Your task to perform on an android device: clear all cookies in the chrome app Image 0: 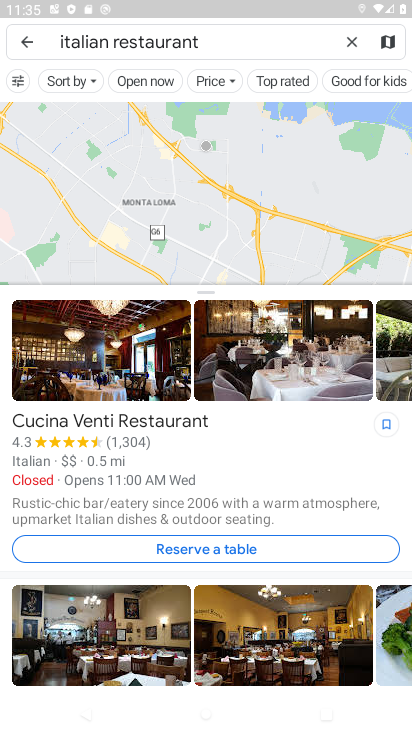
Step 0: press home button
Your task to perform on an android device: clear all cookies in the chrome app Image 1: 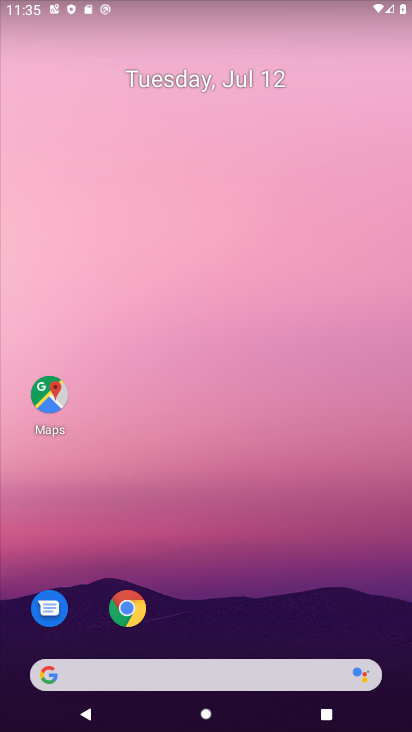
Step 1: click (131, 613)
Your task to perform on an android device: clear all cookies in the chrome app Image 2: 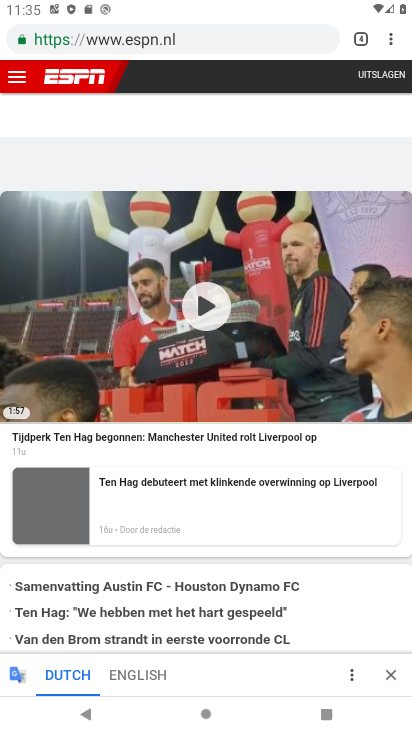
Step 2: click (393, 45)
Your task to perform on an android device: clear all cookies in the chrome app Image 3: 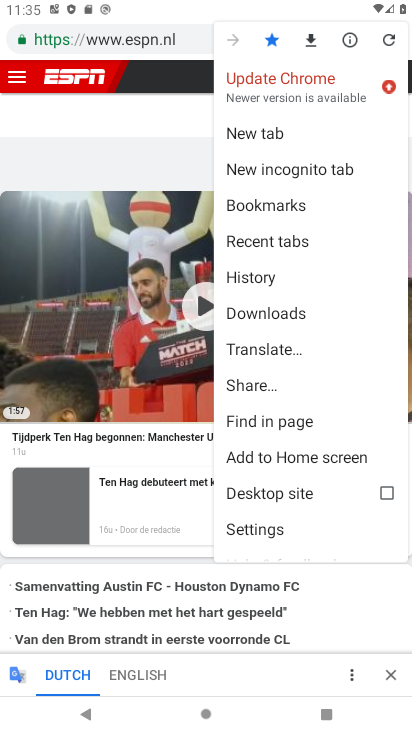
Step 3: click (248, 277)
Your task to perform on an android device: clear all cookies in the chrome app Image 4: 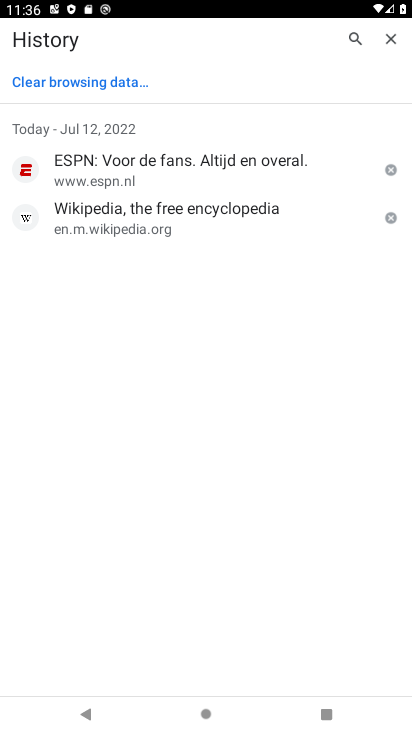
Step 4: click (89, 83)
Your task to perform on an android device: clear all cookies in the chrome app Image 5: 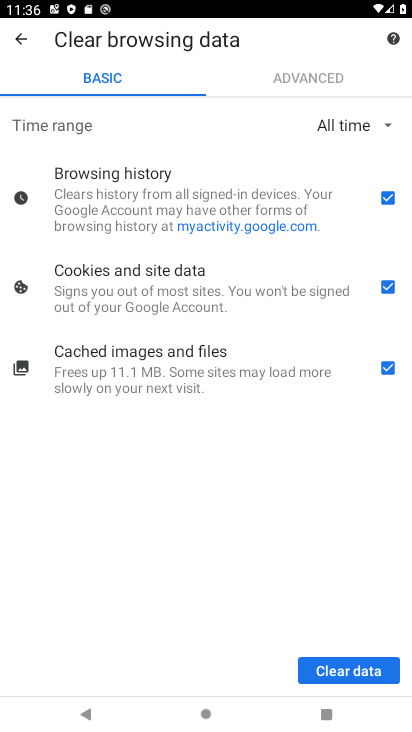
Step 5: click (387, 193)
Your task to perform on an android device: clear all cookies in the chrome app Image 6: 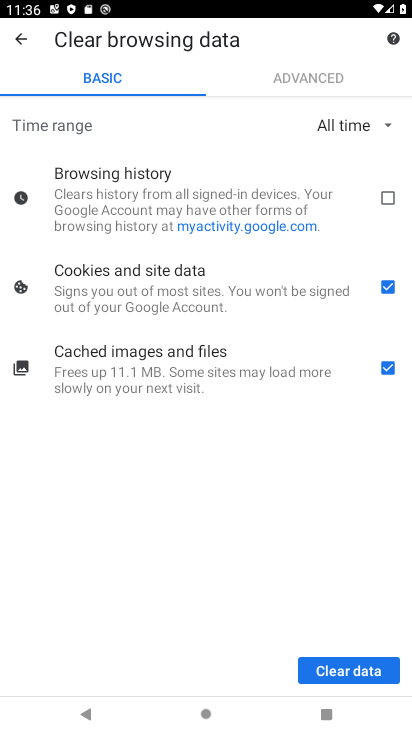
Step 6: click (388, 366)
Your task to perform on an android device: clear all cookies in the chrome app Image 7: 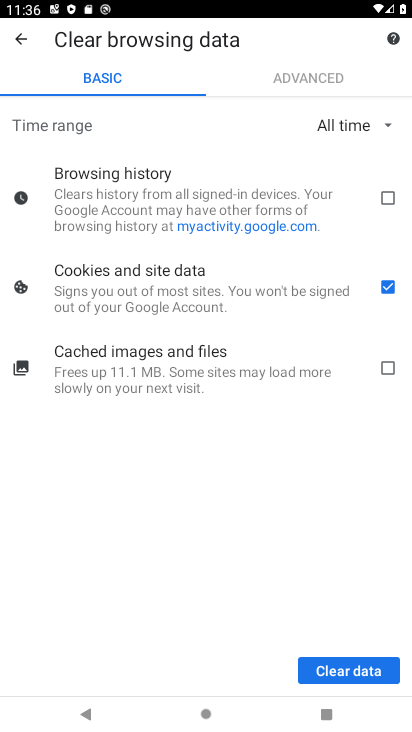
Step 7: click (348, 676)
Your task to perform on an android device: clear all cookies in the chrome app Image 8: 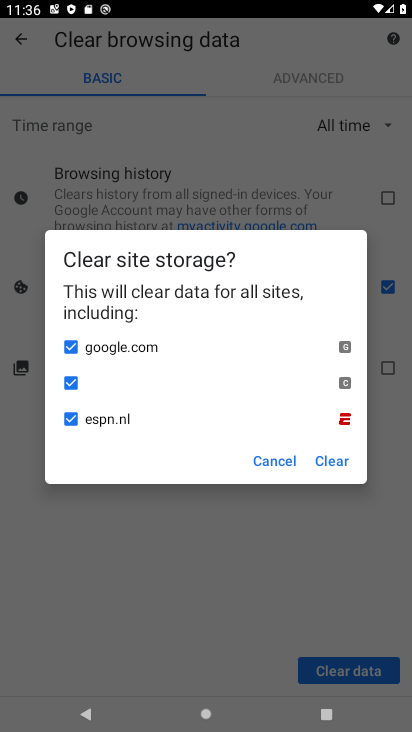
Step 8: click (331, 463)
Your task to perform on an android device: clear all cookies in the chrome app Image 9: 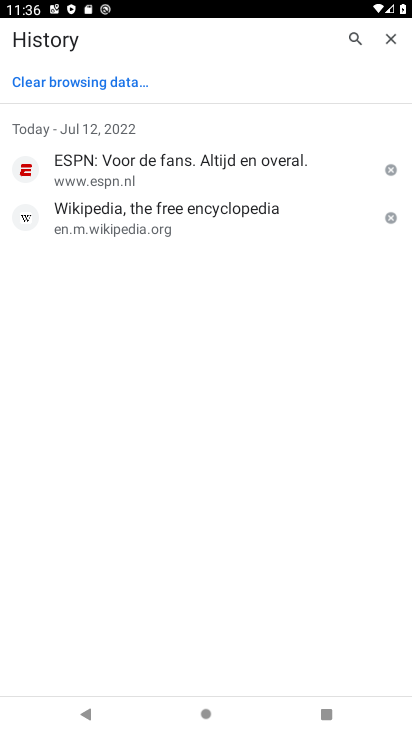
Step 9: task complete